Your task to perform on an android device: turn on showing notifications on the lock screen Image 0: 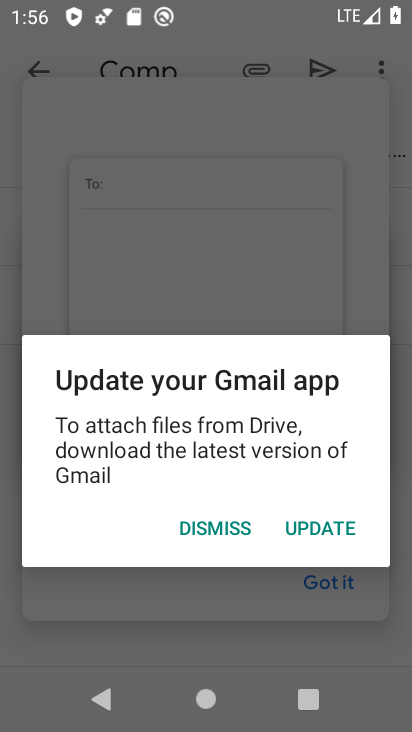
Step 0: press home button
Your task to perform on an android device: turn on showing notifications on the lock screen Image 1: 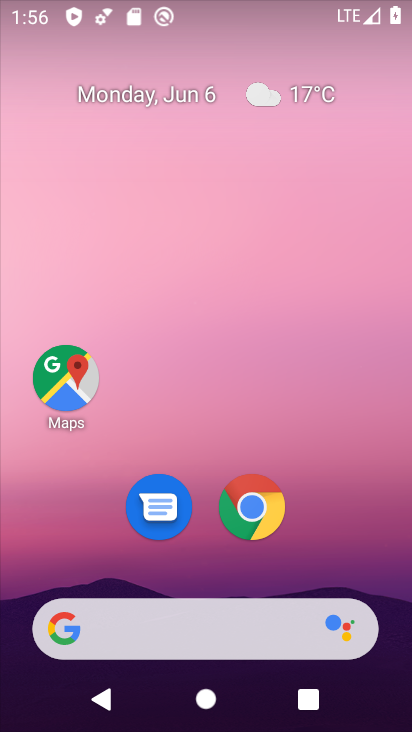
Step 1: drag from (380, 579) to (333, 247)
Your task to perform on an android device: turn on showing notifications on the lock screen Image 2: 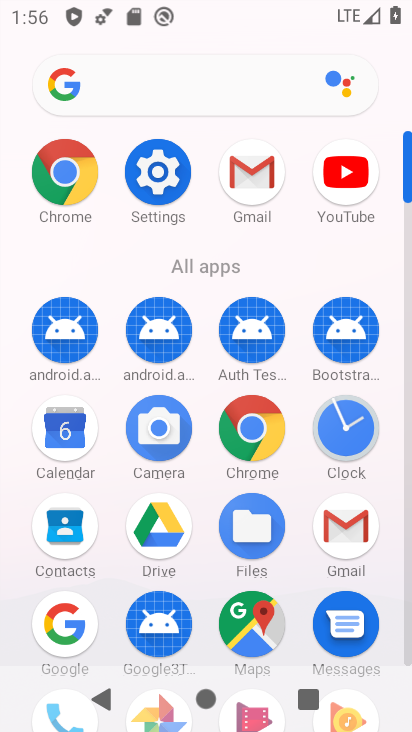
Step 2: click (176, 195)
Your task to perform on an android device: turn on showing notifications on the lock screen Image 3: 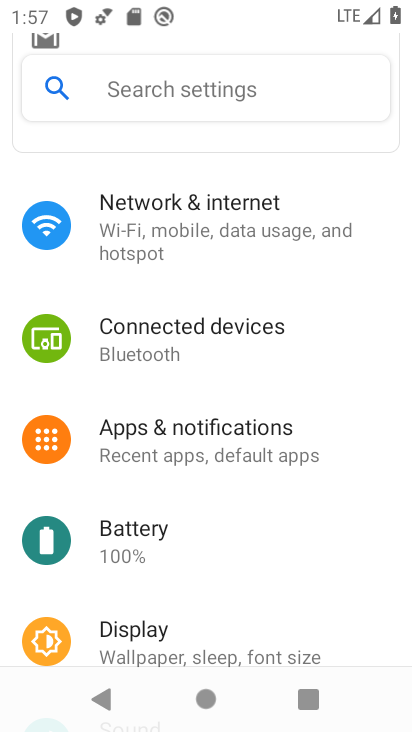
Step 3: click (199, 426)
Your task to perform on an android device: turn on showing notifications on the lock screen Image 4: 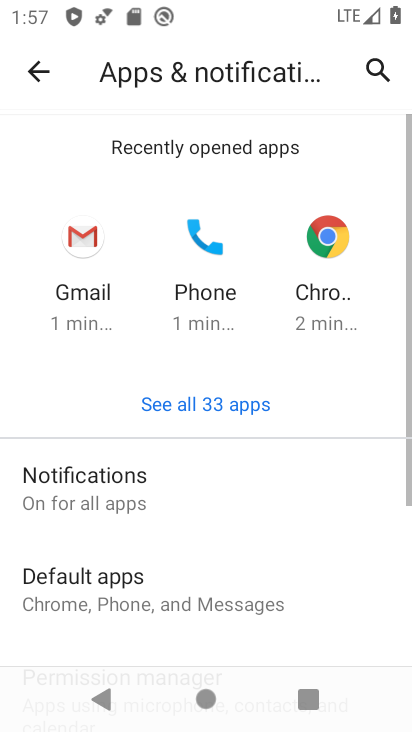
Step 4: click (215, 488)
Your task to perform on an android device: turn on showing notifications on the lock screen Image 5: 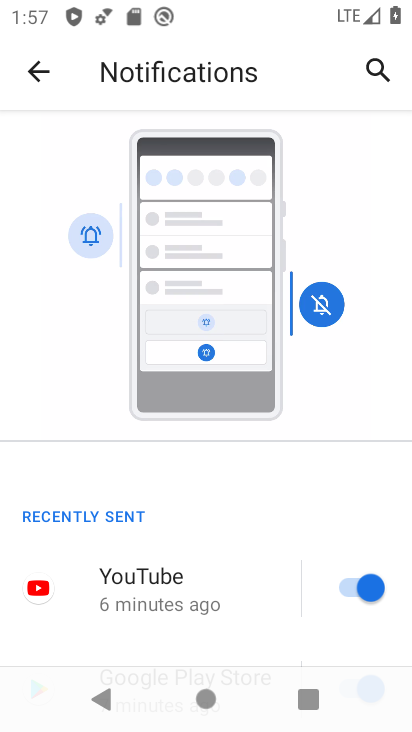
Step 5: drag from (283, 637) to (250, 202)
Your task to perform on an android device: turn on showing notifications on the lock screen Image 6: 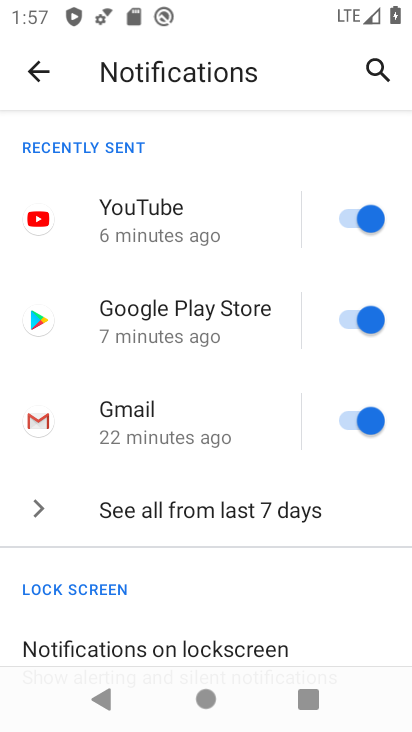
Step 6: drag from (282, 549) to (224, 280)
Your task to perform on an android device: turn on showing notifications on the lock screen Image 7: 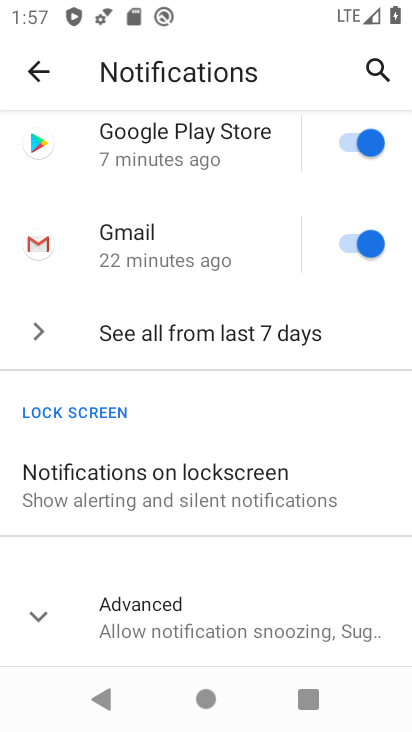
Step 7: click (273, 481)
Your task to perform on an android device: turn on showing notifications on the lock screen Image 8: 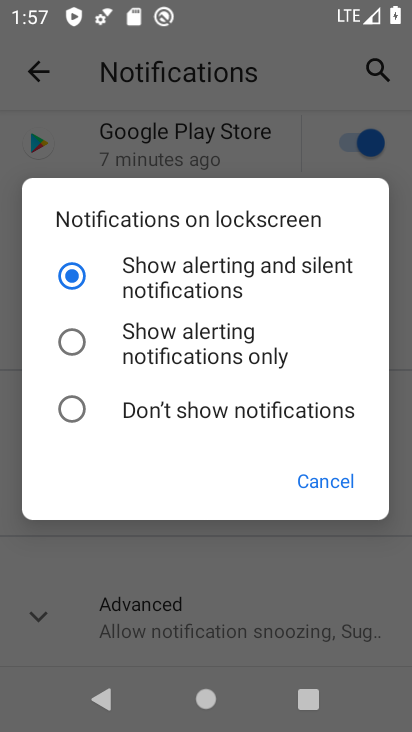
Step 8: task complete